Your task to perform on an android device: toggle data saver in the chrome app Image 0: 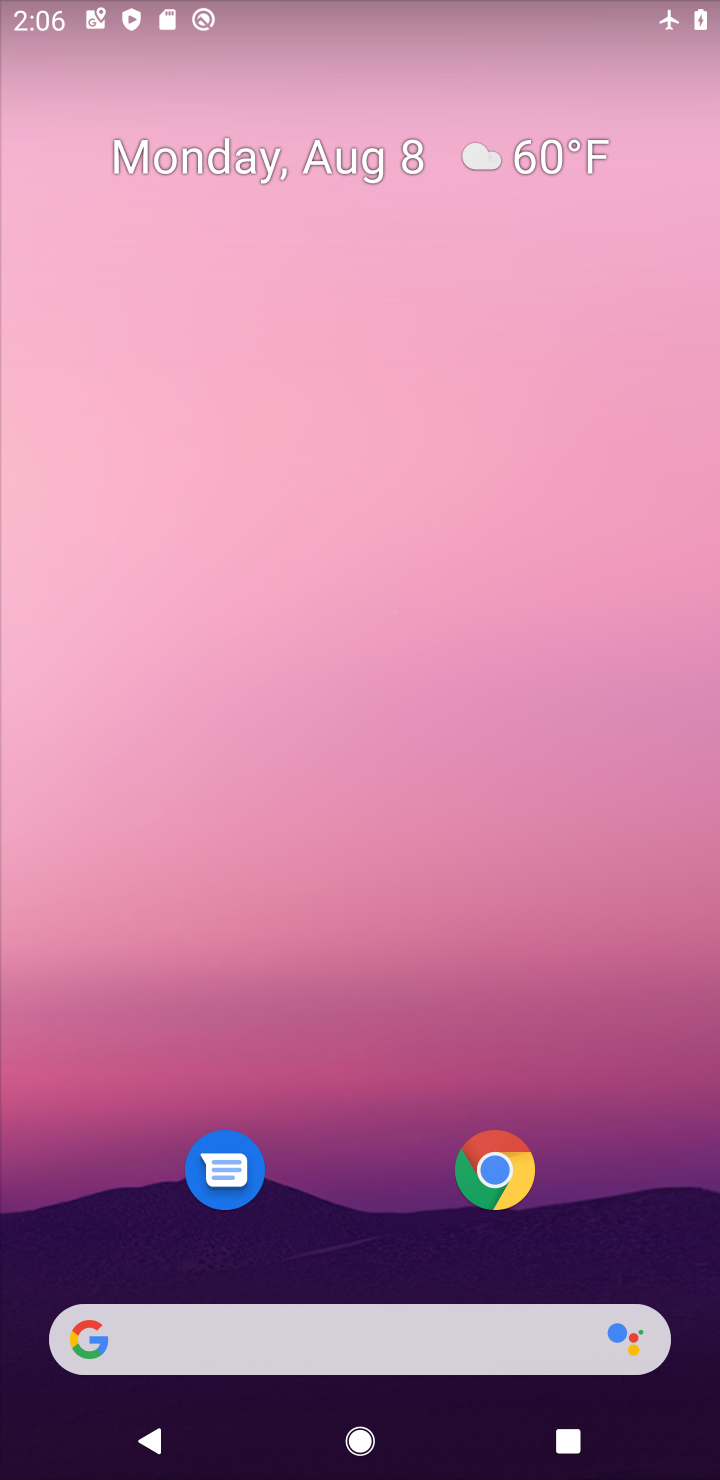
Step 0: click (477, 1184)
Your task to perform on an android device: toggle data saver in the chrome app Image 1: 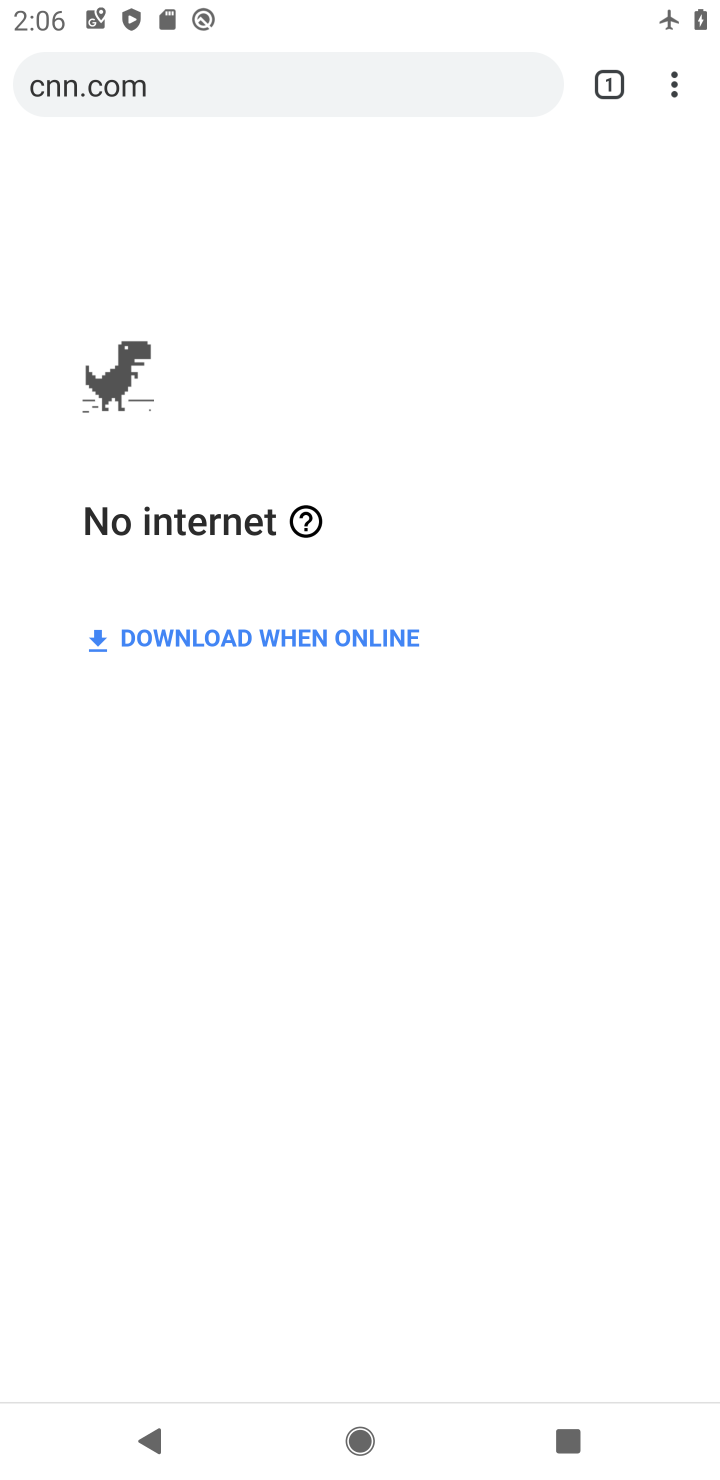
Step 1: click (666, 92)
Your task to perform on an android device: toggle data saver in the chrome app Image 2: 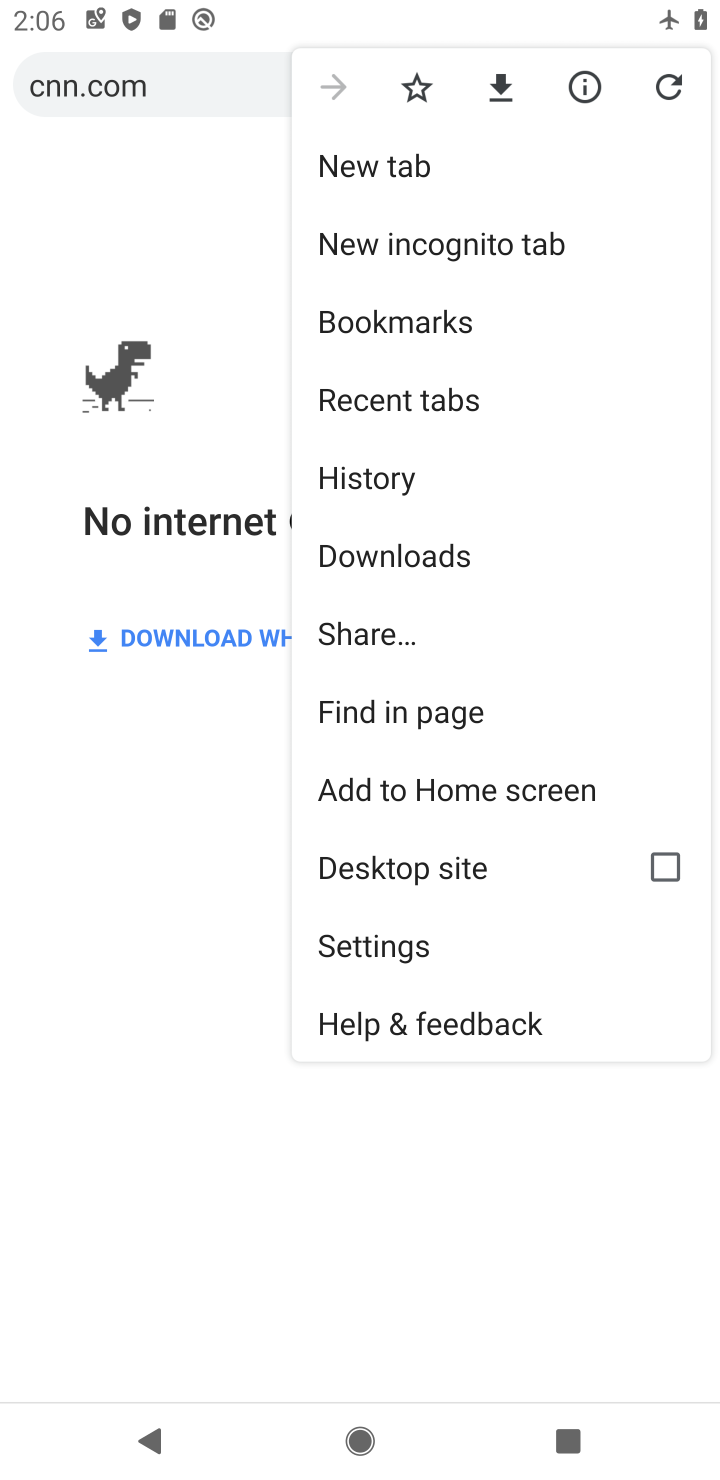
Step 2: click (375, 951)
Your task to perform on an android device: toggle data saver in the chrome app Image 3: 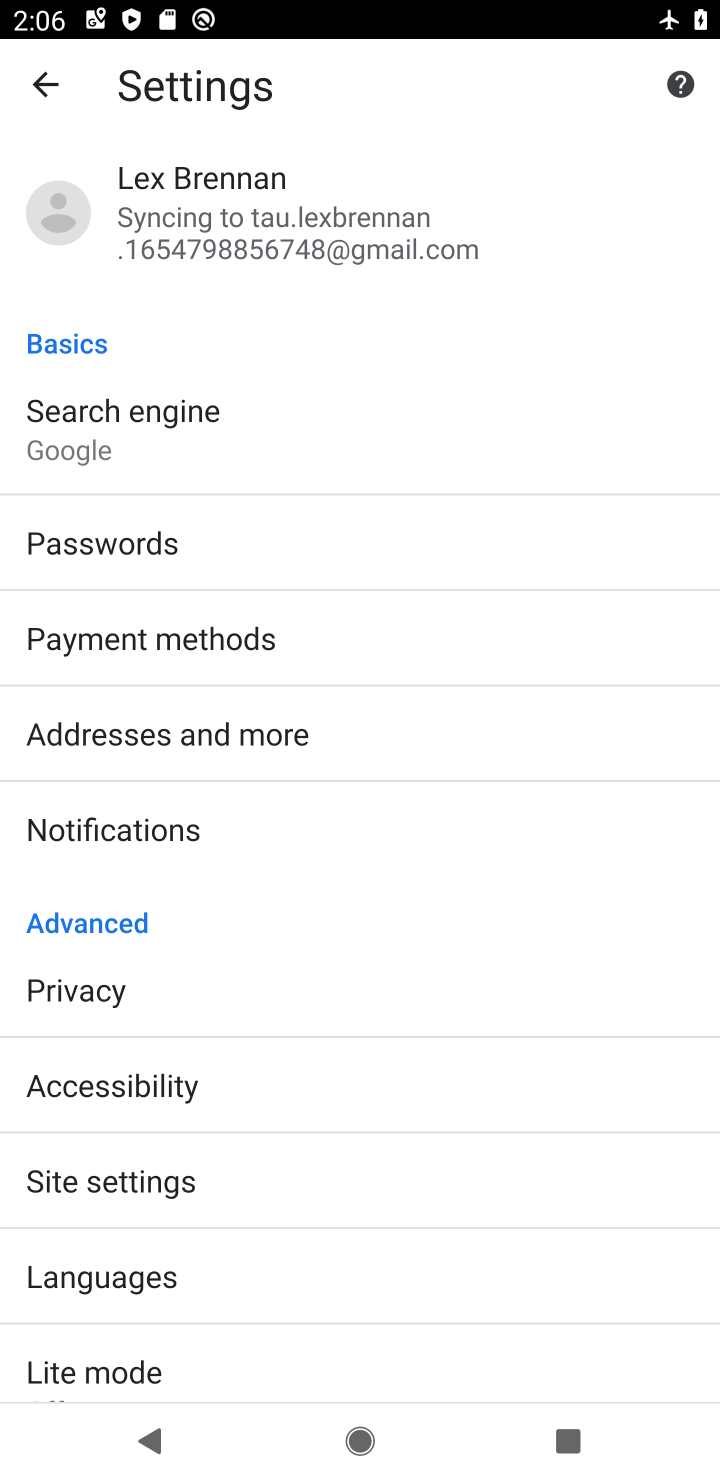
Step 3: drag from (188, 1321) to (211, 993)
Your task to perform on an android device: toggle data saver in the chrome app Image 4: 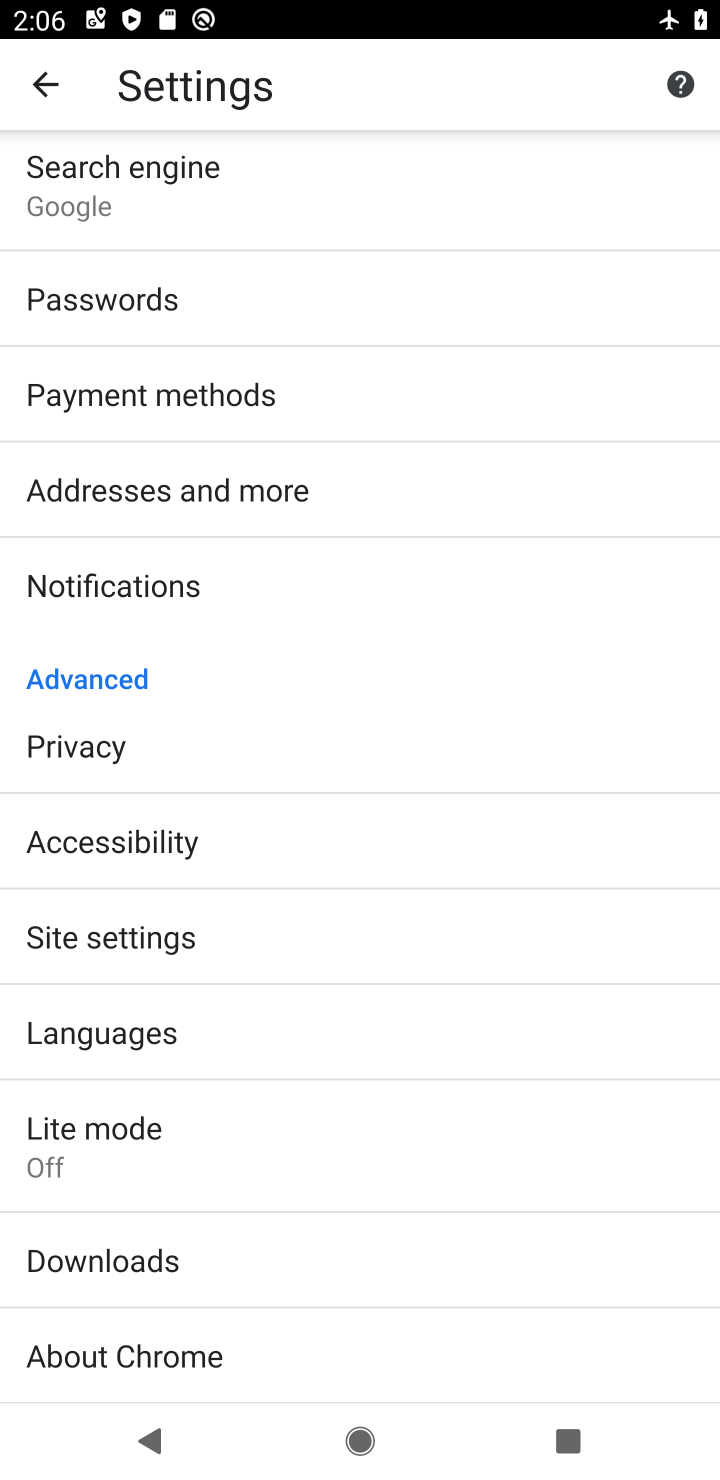
Step 4: click (155, 1139)
Your task to perform on an android device: toggle data saver in the chrome app Image 5: 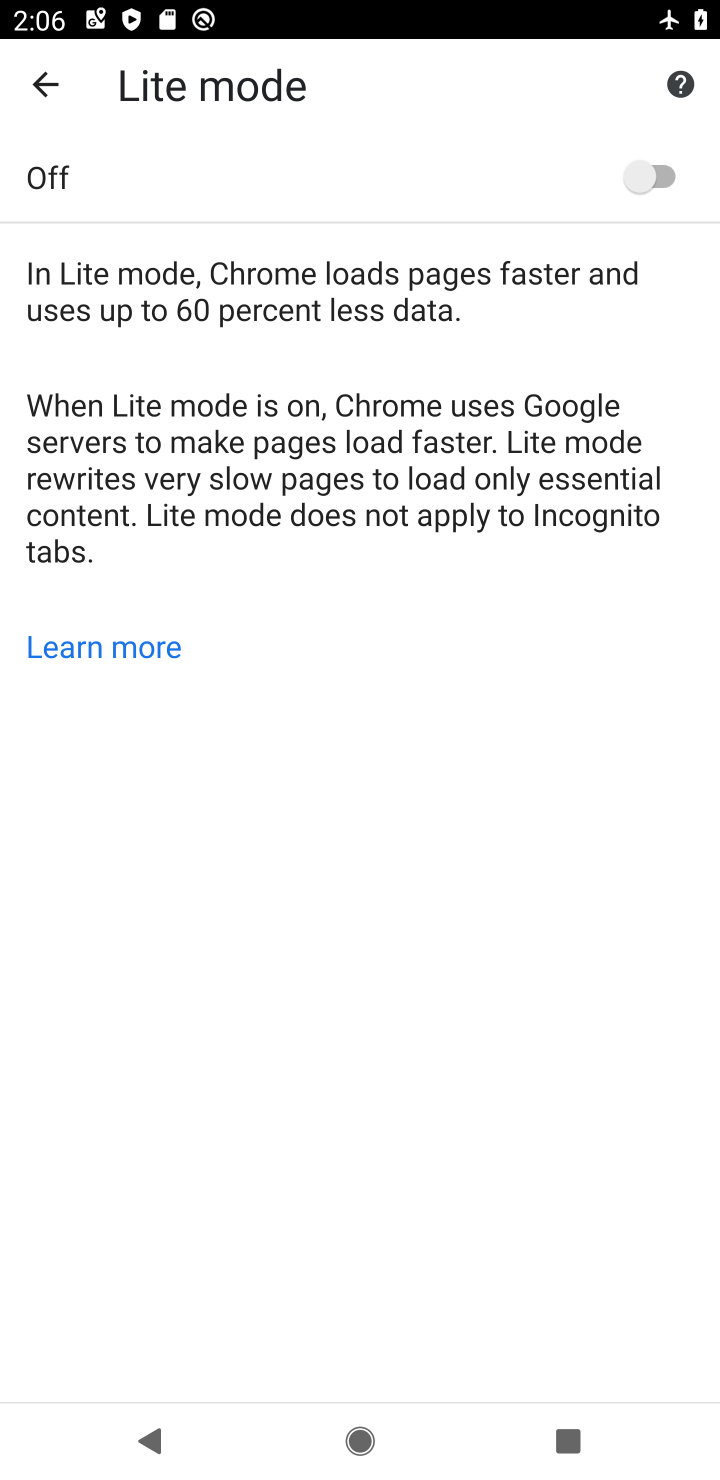
Step 5: click (665, 188)
Your task to perform on an android device: toggle data saver in the chrome app Image 6: 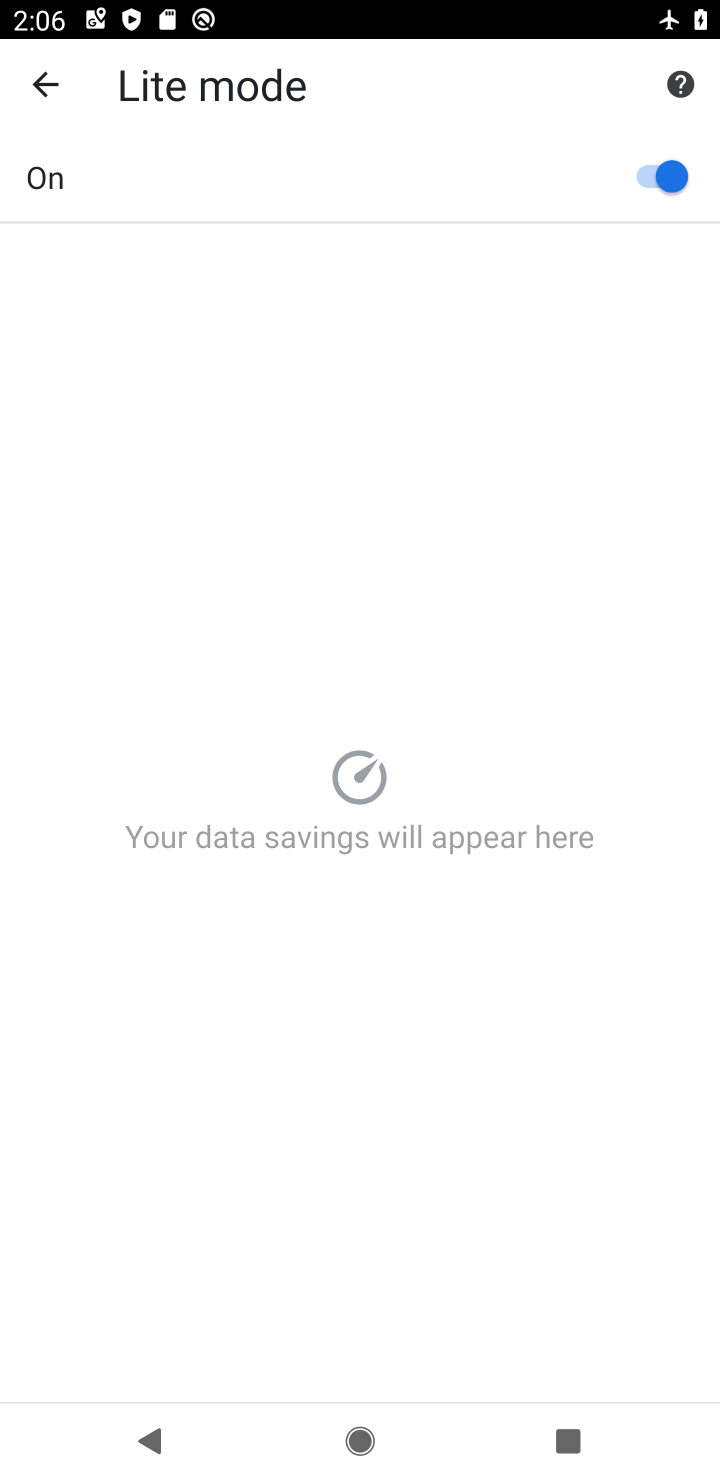
Step 6: task complete